Your task to perform on an android device: install app "Duolingo: language lessons" Image 0: 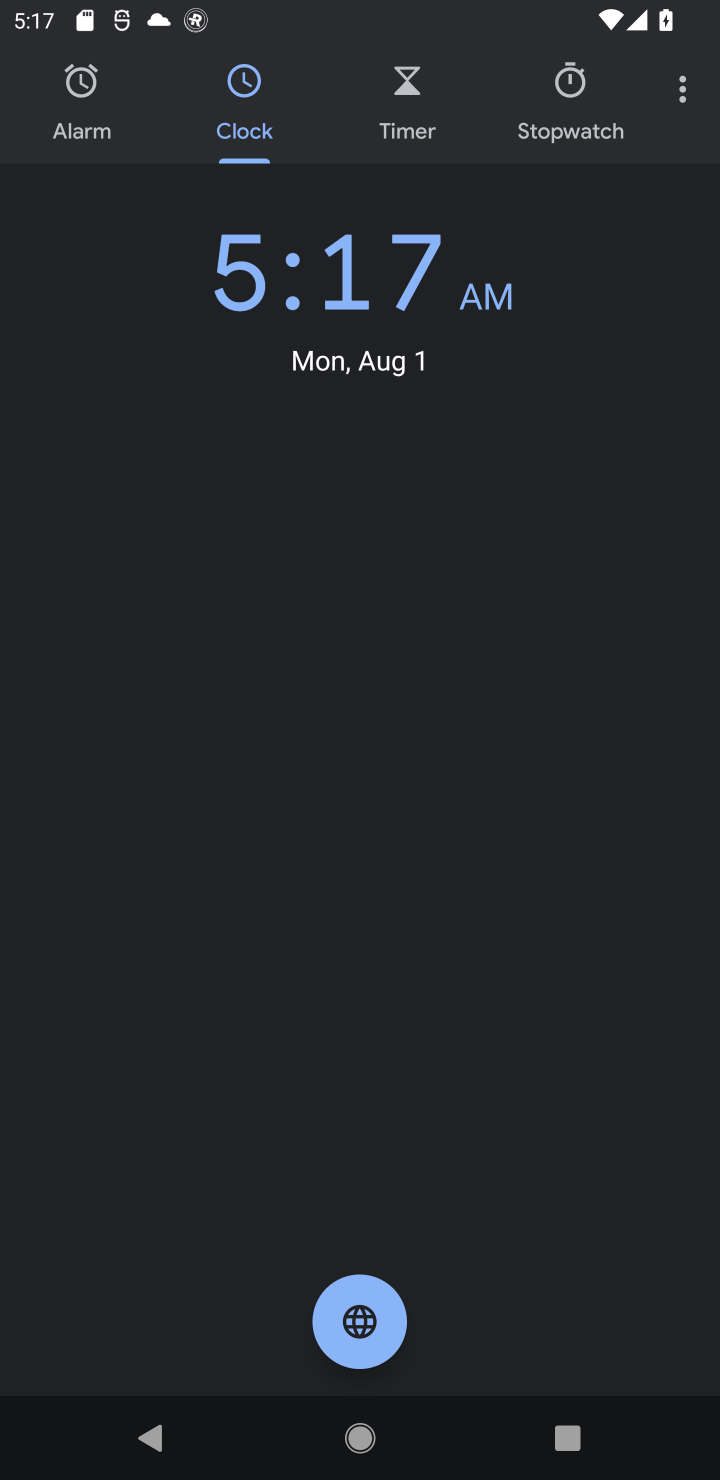
Step 0: press home button
Your task to perform on an android device: install app "Duolingo: language lessons" Image 1: 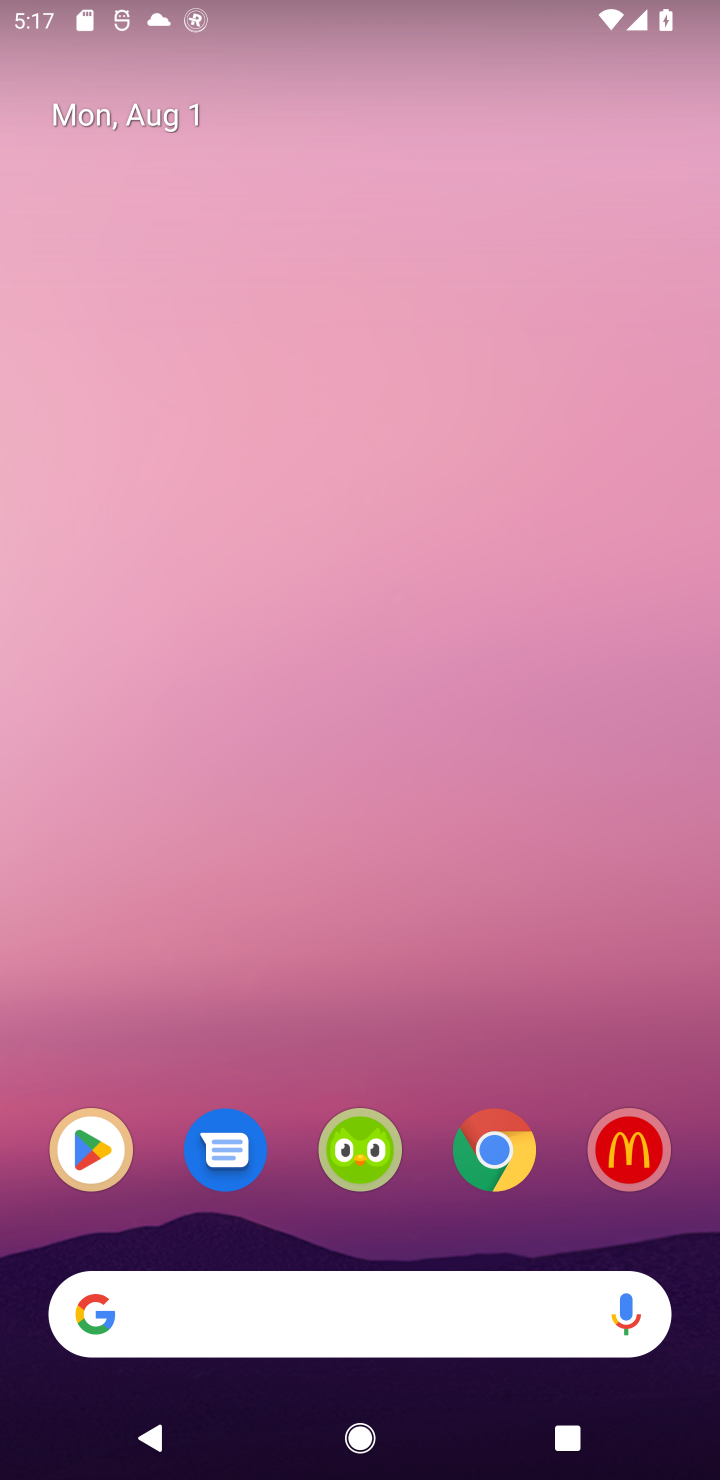
Step 1: click (103, 1173)
Your task to perform on an android device: install app "Duolingo: language lessons" Image 2: 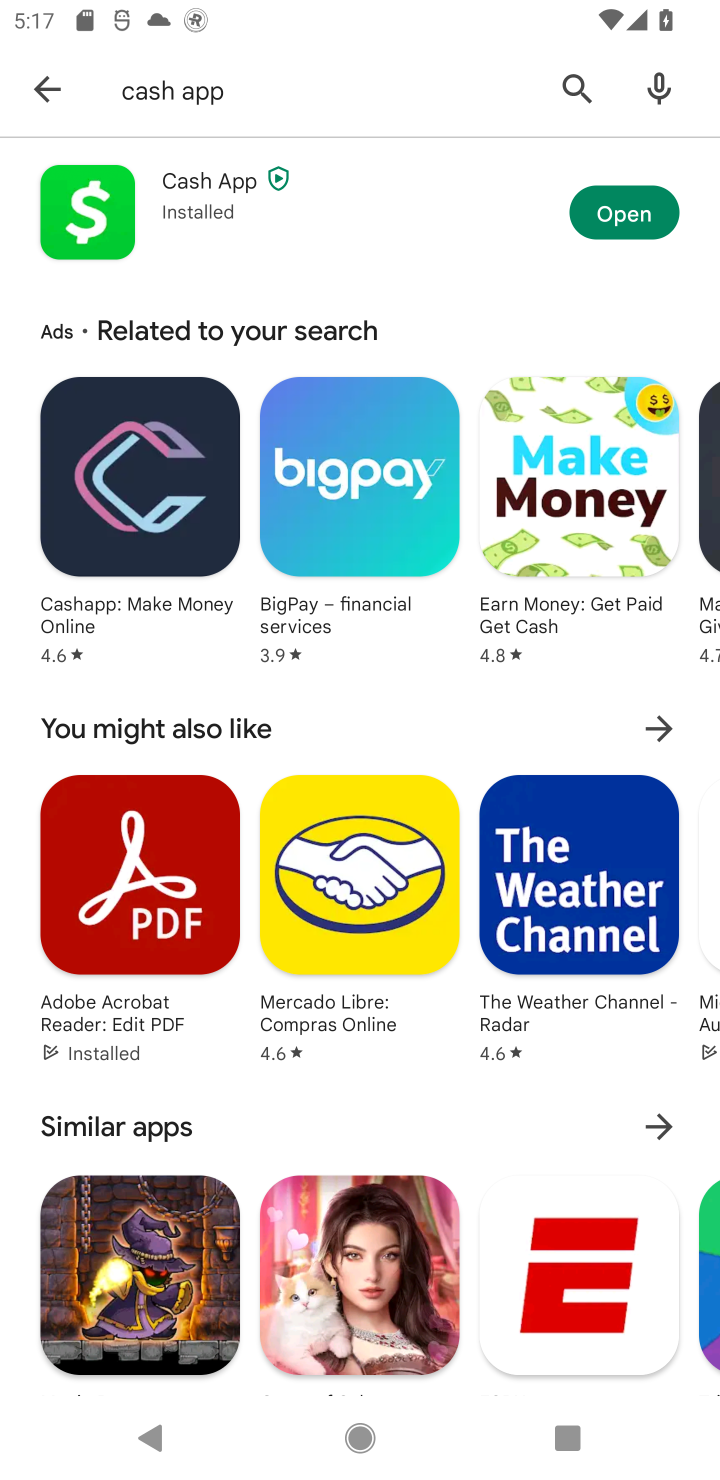
Step 2: click (586, 77)
Your task to perform on an android device: install app "Duolingo: language lessons" Image 3: 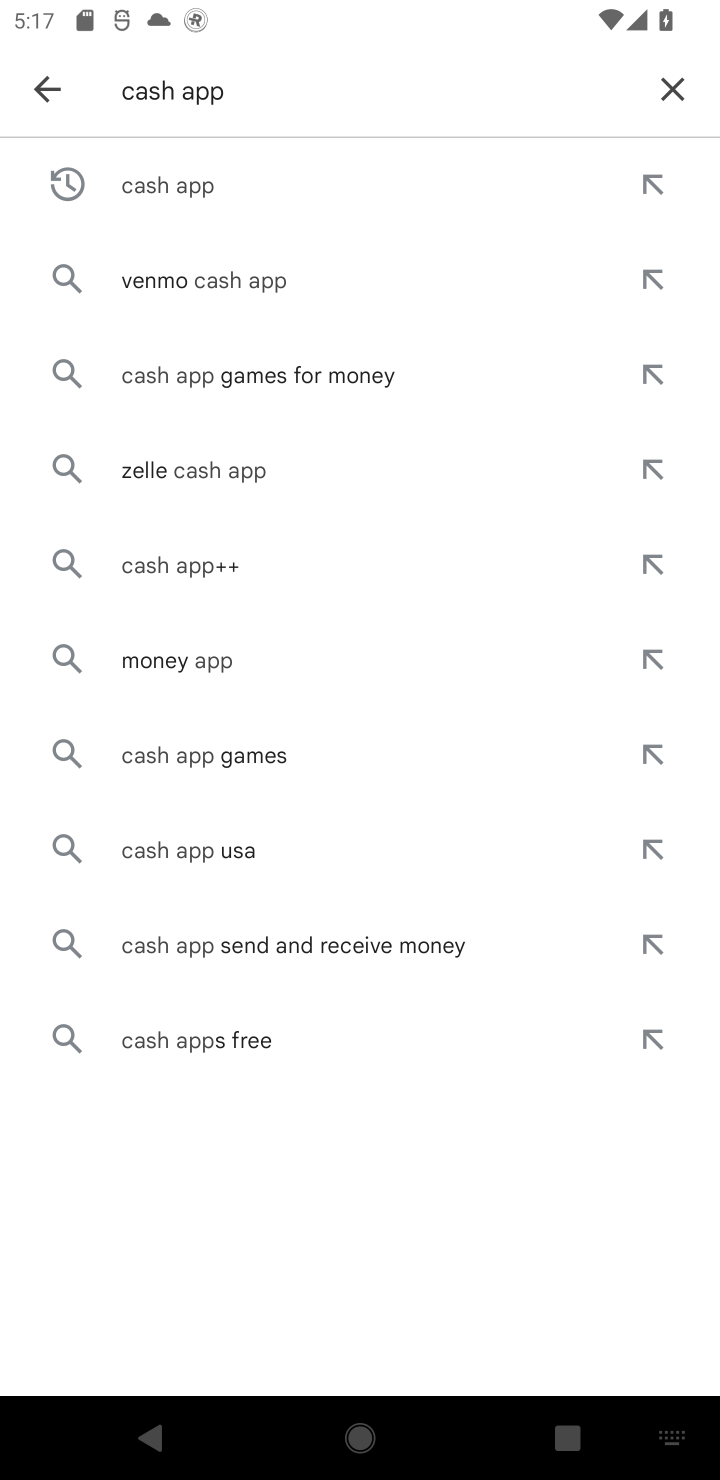
Step 3: click (669, 115)
Your task to perform on an android device: install app "Duolingo: language lessons" Image 4: 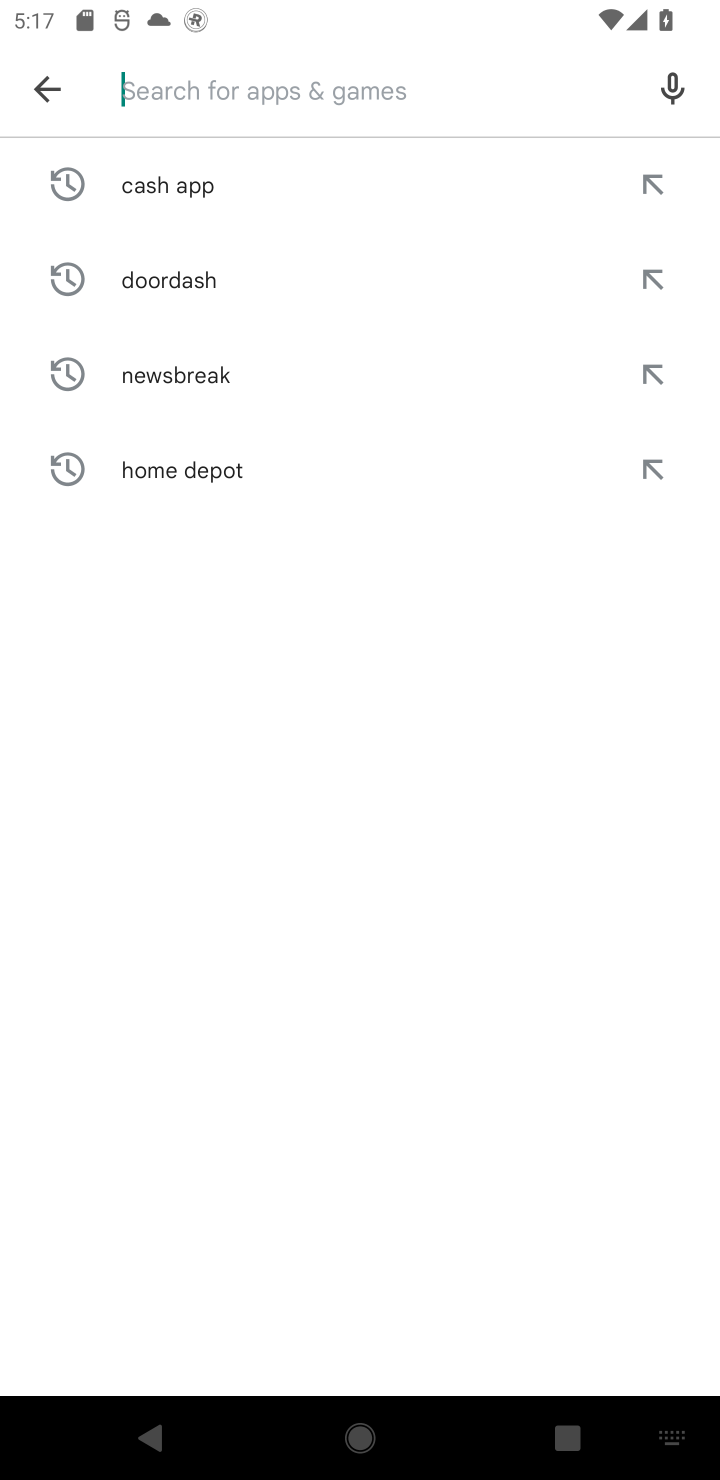
Step 4: type "duoling"
Your task to perform on an android device: install app "Duolingo: language lessons" Image 5: 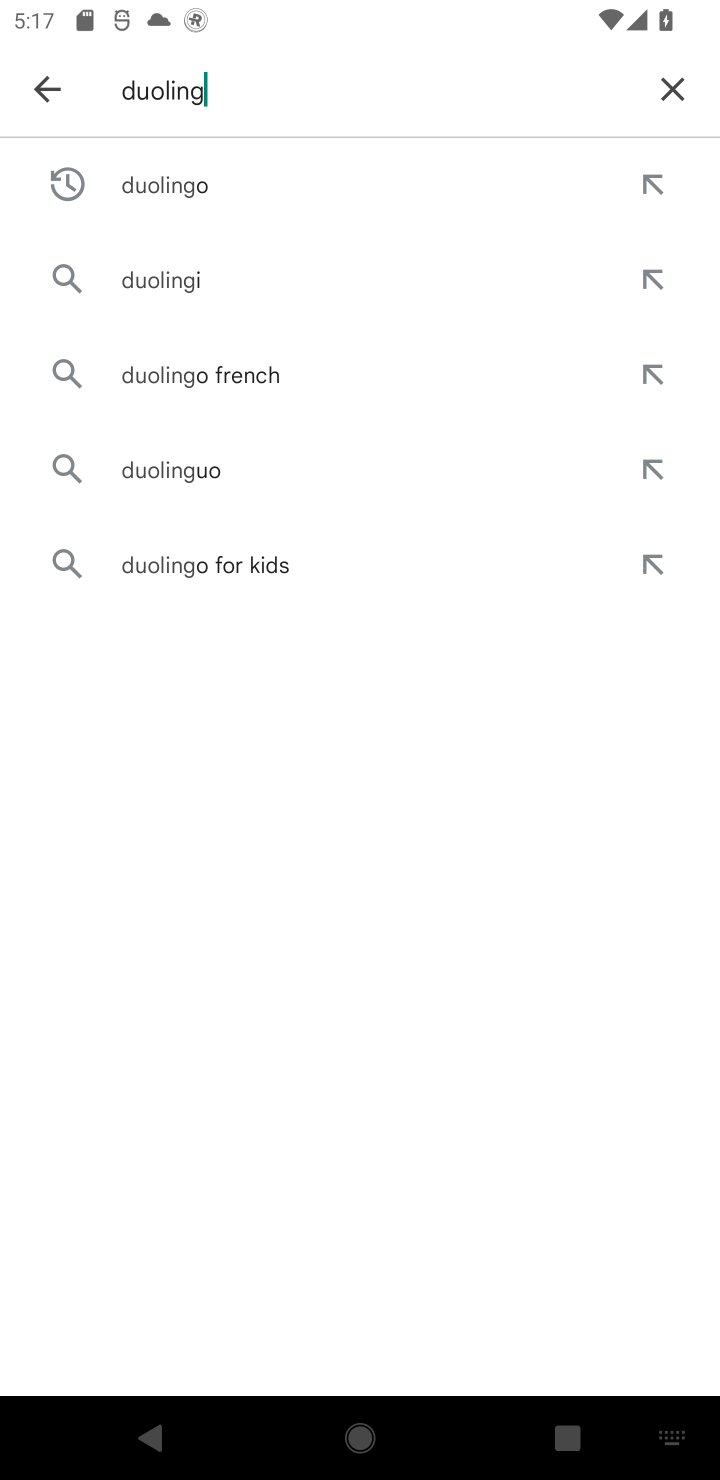
Step 5: click (288, 201)
Your task to perform on an android device: install app "Duolingo: language lessons" Image 6: 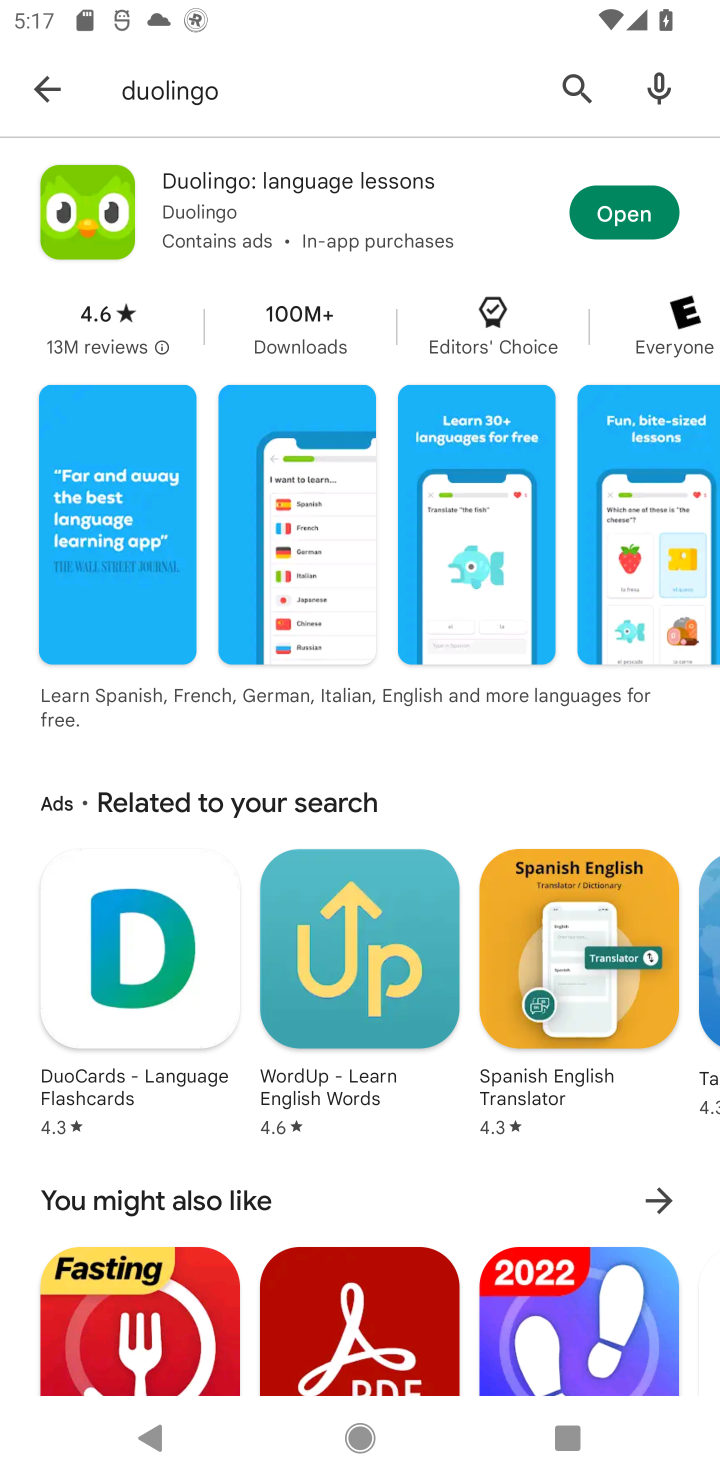
Step 6: click (647, 217)
Your task to perform on an android device: install app "Duolingo: language lessons" Image 7: 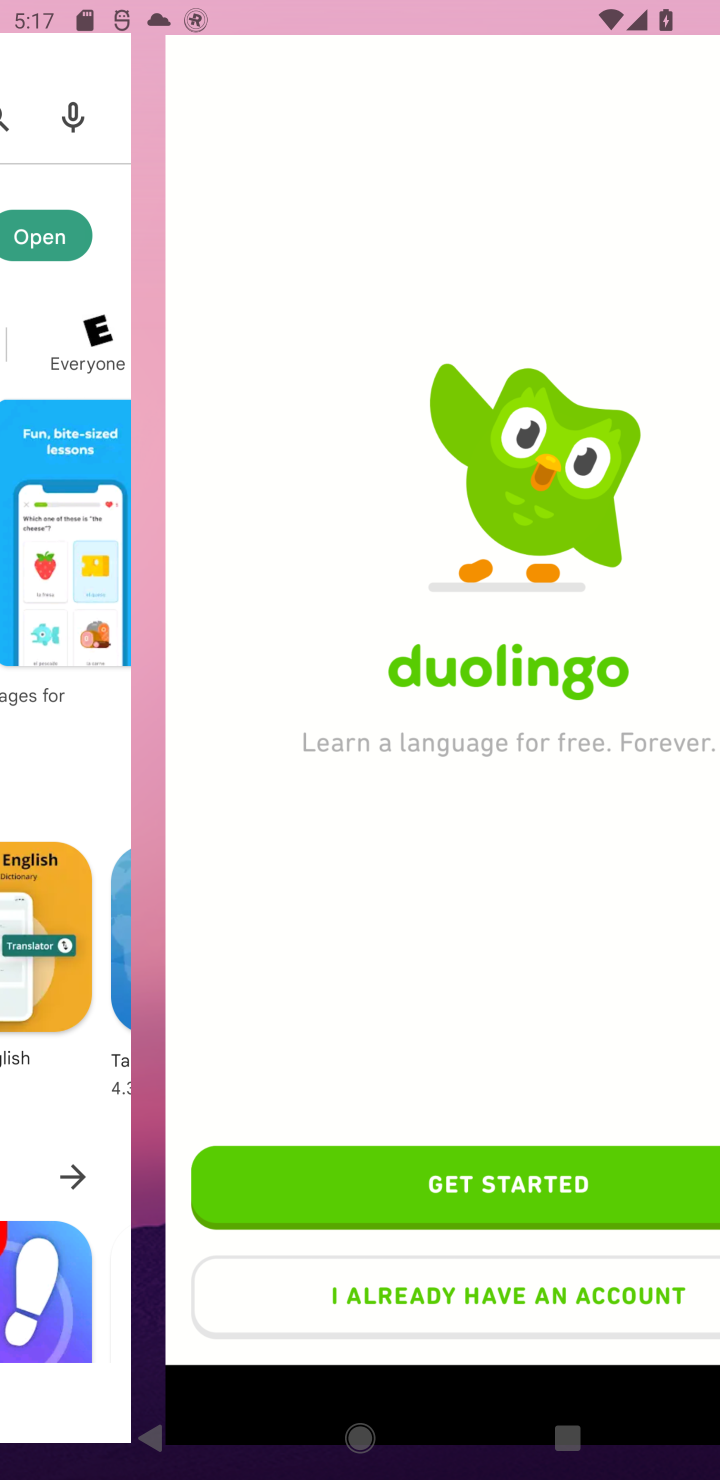
Step 7: task complete